Your task to perform on an android device: turn off data saver in the chrome app Image 0: 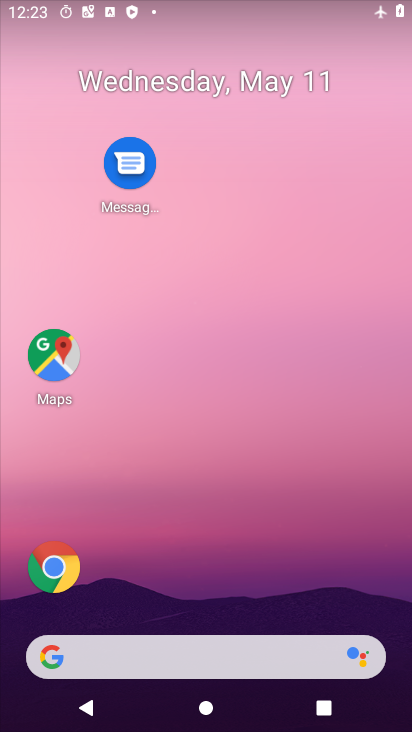
Step 0: drag from (212, 583) to (274, 123)
Your task to perform on an android device: turn off data saver in the chrome app Image 1: 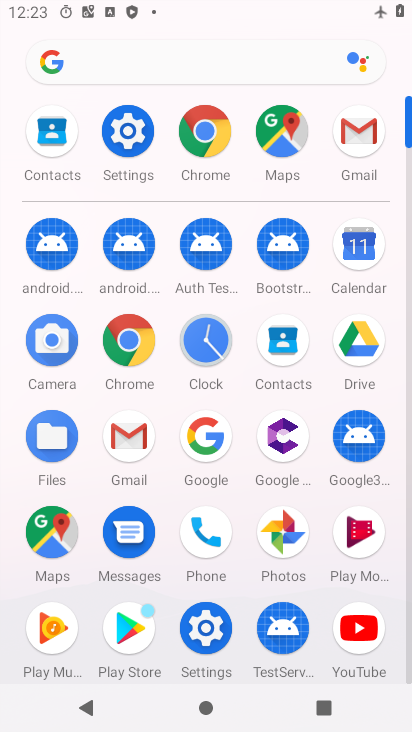
Step 1: click (148, 357)
Your task to perform on an android device: turn off data saver in the chrome app Image 2: 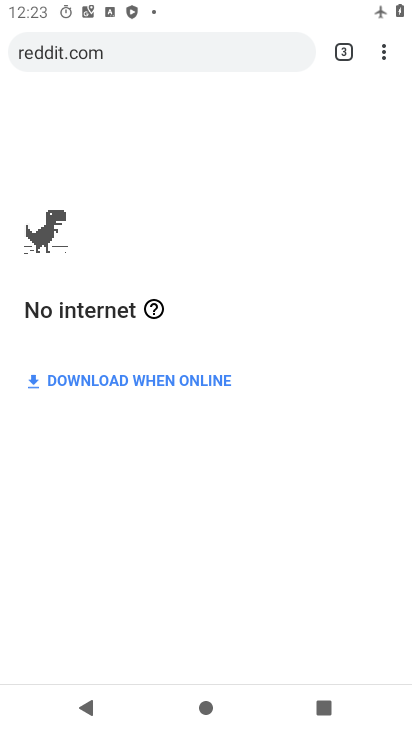
Step 2: click (391, 61)
Your task to perform on an android device: turn off data saver in the chrome app Image 3: 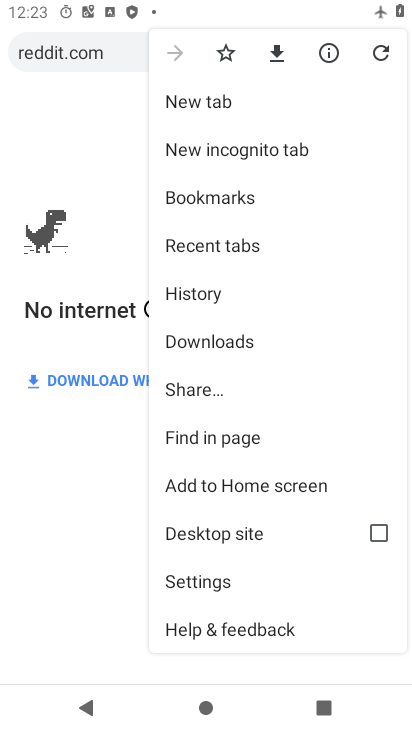
Step 3: click (244, 579)
Your task to perform on an android device: turn off data saver in the chrome app Image 4: 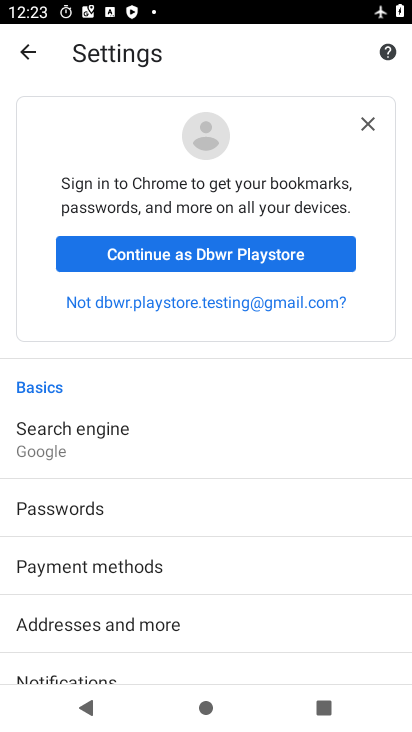
Step 4: drag from (222, 655) to (237, 276)
Your task to perform on an android device: turn off data saver in the chrome app Image 5: 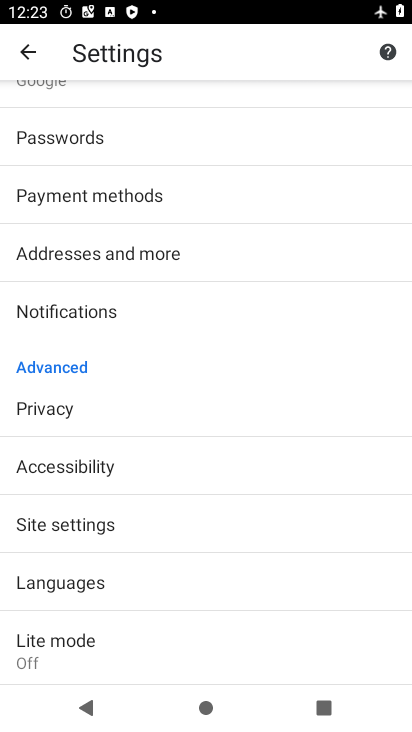
Step 5: click (133, 648)
Your task to perform on an android device: turn off data saver in the chrome app Image 6: 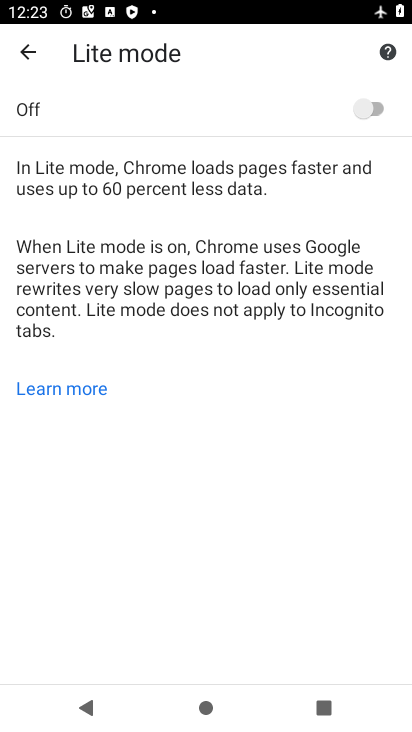
Step 6: task complete